Your task to perform on an android device: turn off wifi Image 0: 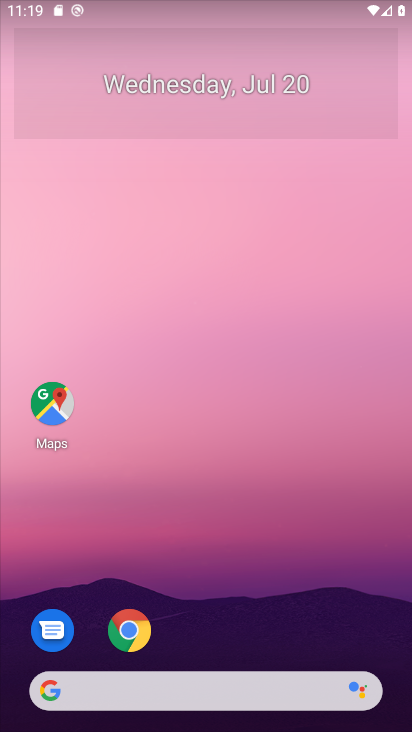
Step 0: drag from (224, 6) to (286, 460)
Your task to perform on an android device: turn off wifi Image 1: 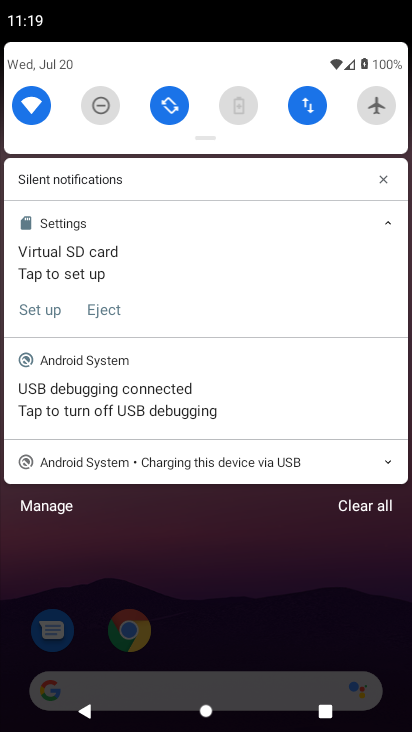
Step 1: click (31, 105)
Your task to perform on an android device: turn off wifi Image 2: 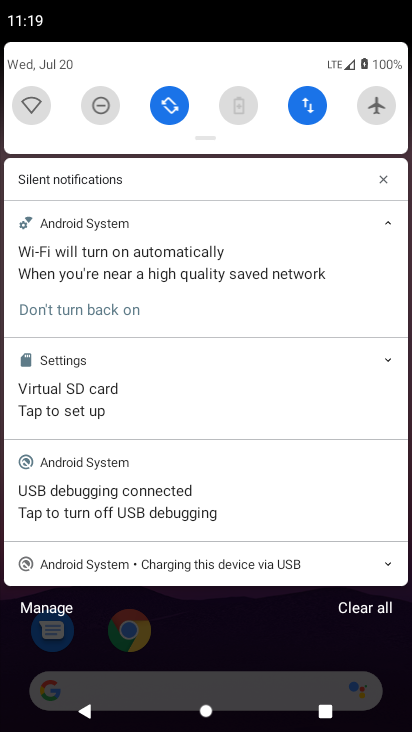
Step 2: task complete